Your task to perform on an android device: Open ESPN.com Image 0: 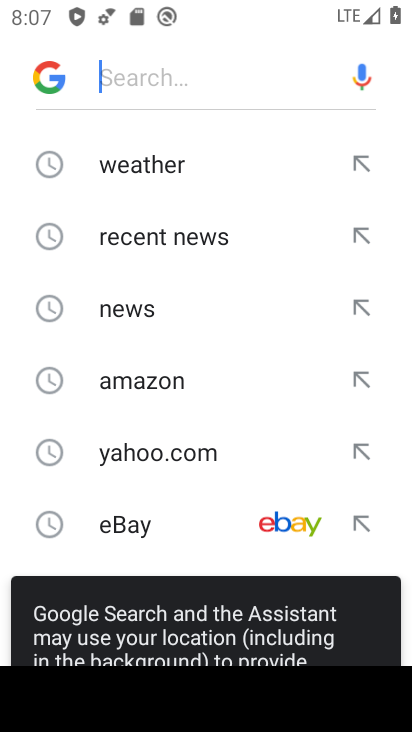
Step 0: press back button
Your task to perform on an android device: Open ESPN.com Image 1: 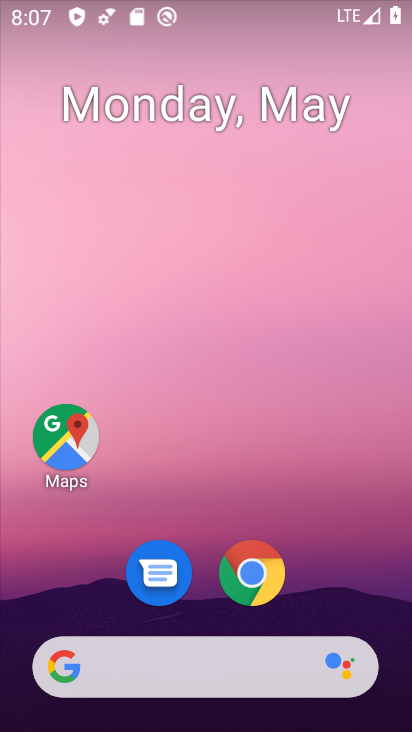
Step 1: click (264, 583)
Your task to perform on an android device: Open ESPN.com Image 2: 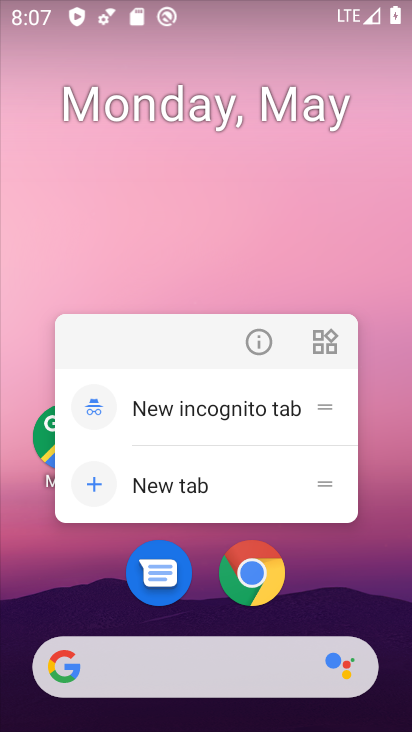
Step 2: click (261, 580)
Your task to perform on an android device: Open ESPN.com Image 3: 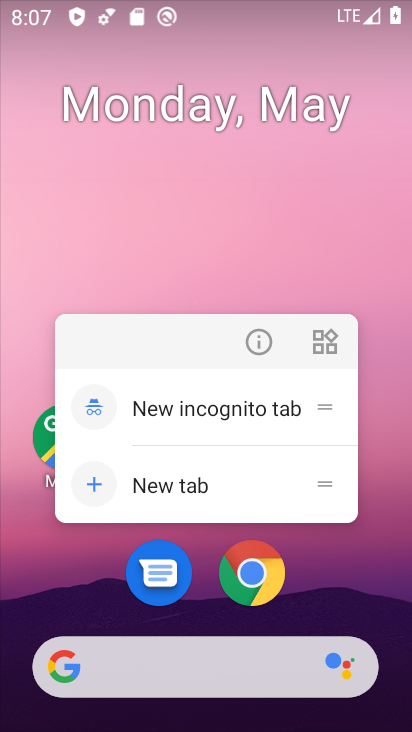
Step 3: click (253, 571)
Your task to perform on an android device: Open ESPN.com Image 4: 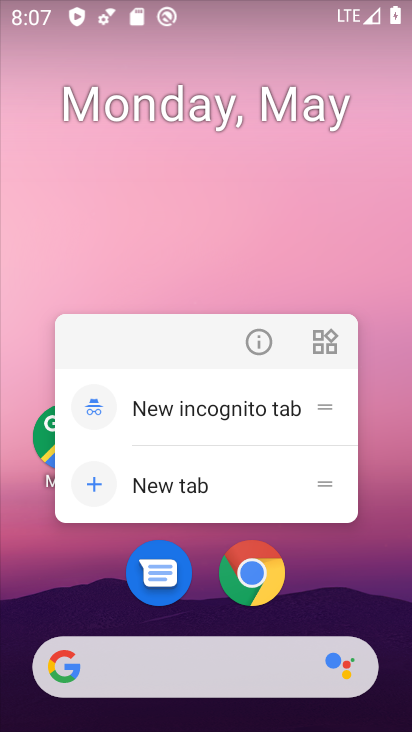
Step 4: click (242, 549)
Your task to perform on an android device: Open ESPN.com Image 5: 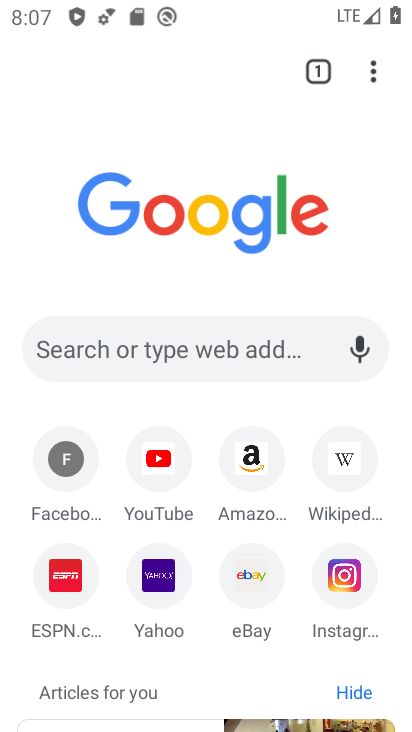
Step 5: click (64, 569)
Your task to perform on an android device: Open ESPN.com Image 6: 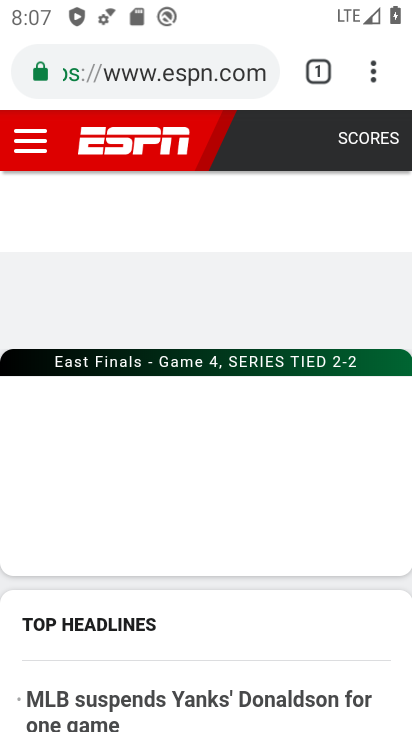
Step 6: task complete